Your task to perform on an android device: Open Youtube and go to the subscriptions tab Image 0: 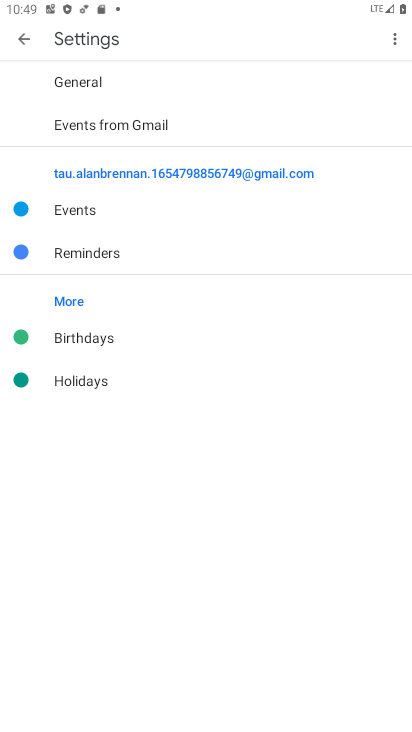
Step 0: press home button
Your task to perform on an android device: Open Youtube and go to the subscriptions tab Image 1: 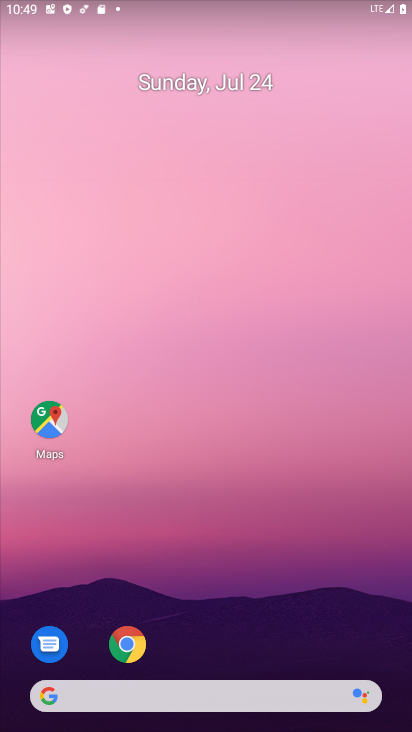
Step 1: drag from (8, 667) to (339, 59)
Your task to perform on an android device: Open Youtube and go to the subscriptions tab Image 2: 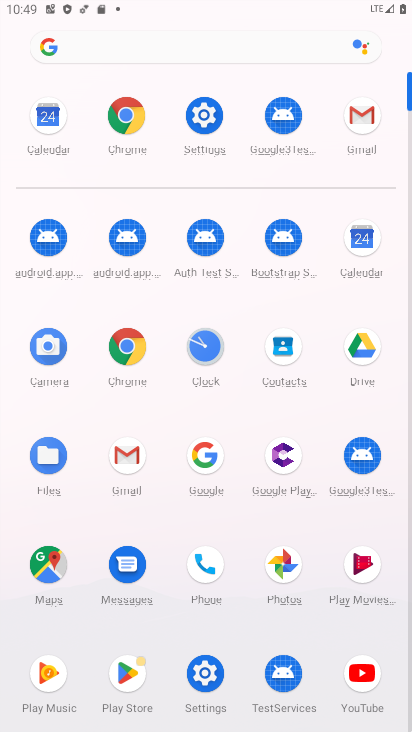
Step 2: click (352, 675)
Your task to perform on an android device: Open Youtube and go to the subscriptions tab Image 3: 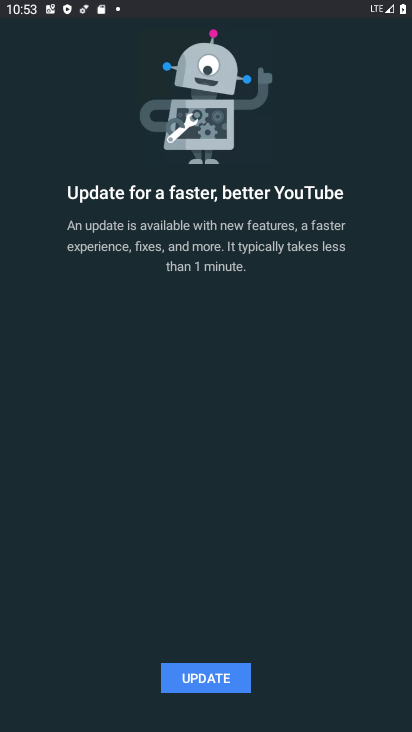
Step 3: task complete